Your task to perform on an android device: Open display settings Image 0: 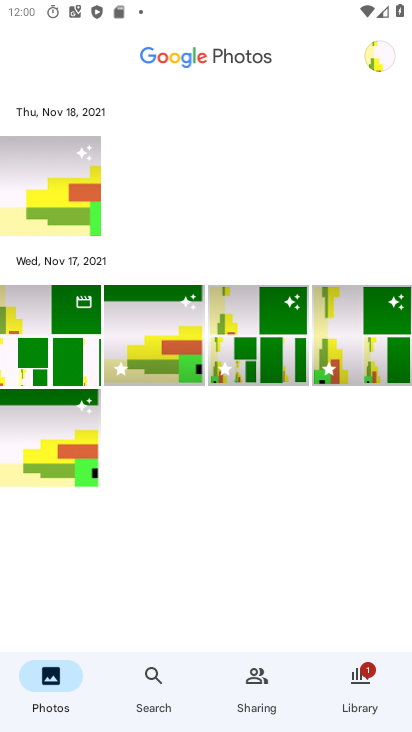
Step 0: press home button
Your task to perform on an android device: Open display settings Image 1: 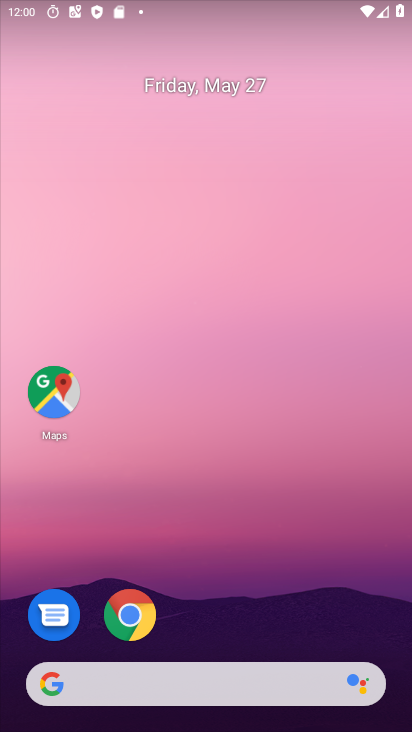
Step 1: drag from (245, 614) to (232, 247)
Your task to perform on an android device: Open display settings Image 2: 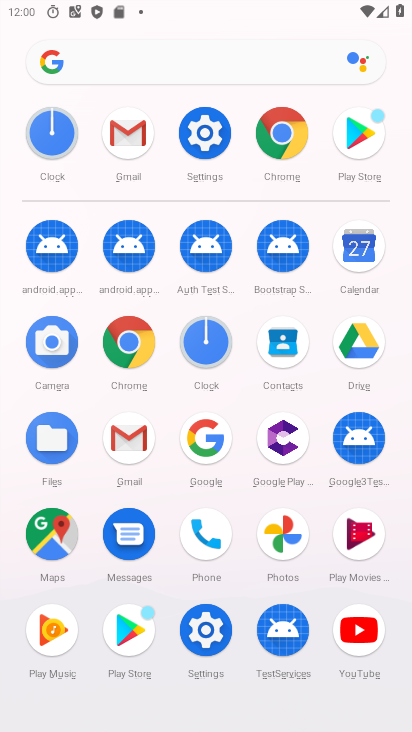
Step 2: click (208, 140)
Your task to perform on an android device: Open display settings Image 3: 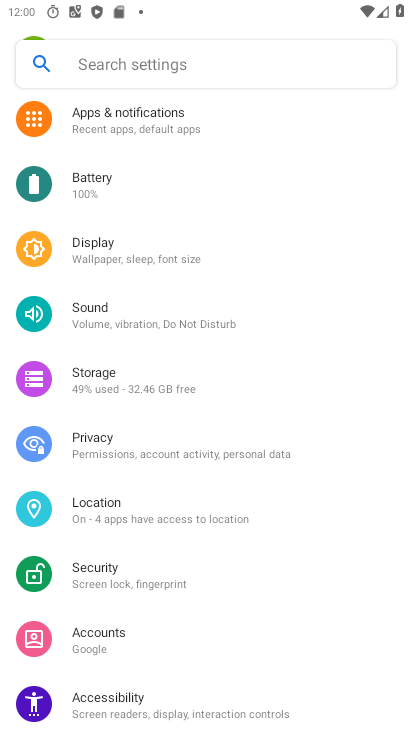
Step 3: drag from (159, 131) to (150, 223)
Your task to perform on an android device: Open display settings Image 4: 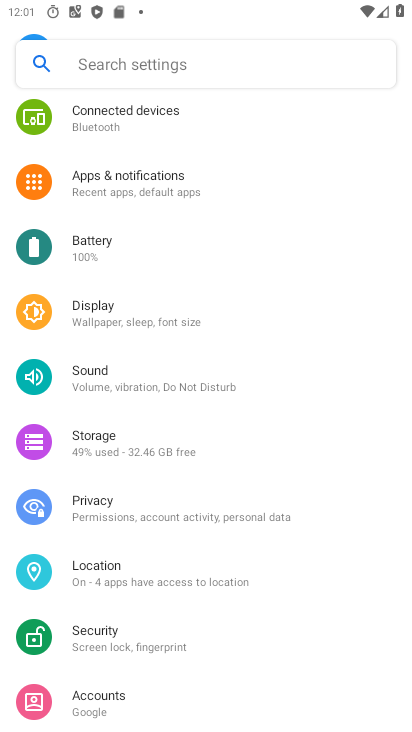
Step 4: click (143, 312)
Your task to perform on an android device: Open display settings Image 5: 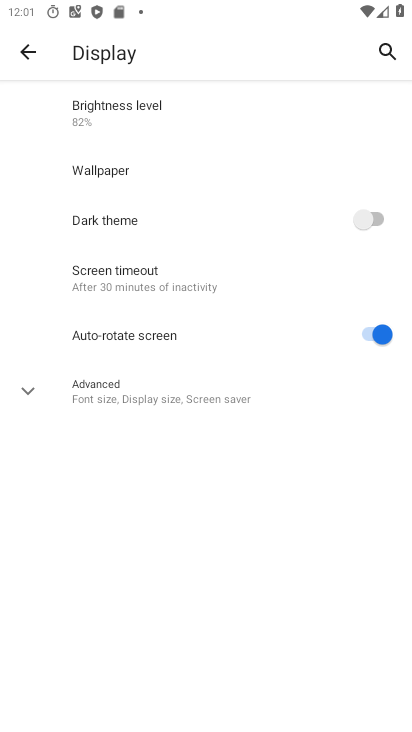
Step 5: task complete